Your task to perform on an android device: Go to Android settings Image 0: 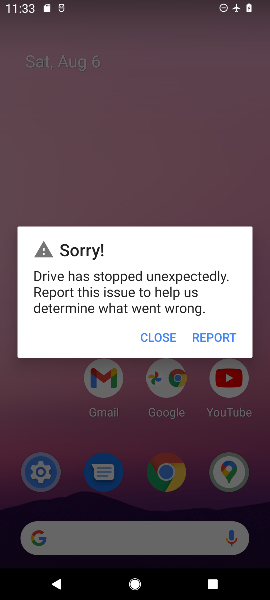
Step 0: press back button
Your task to perform on an android device: Go to Android settings Image 1: 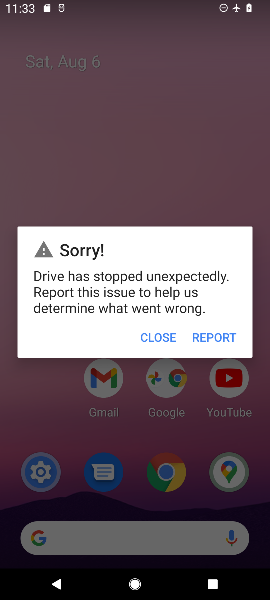
Step 1: click (163, 337)
Your task to perform on an android device: Go to Android settings Image 2: 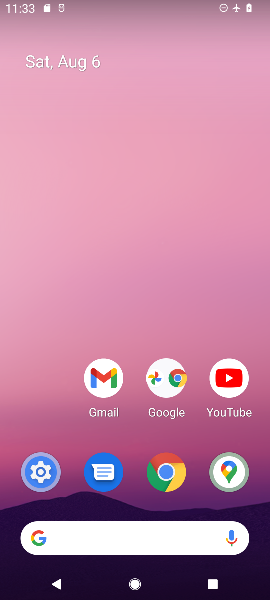
Step 2: drag from (165, 566) to (123, 137)
Your task to perform on an android device: Go to Android settings Image 3: 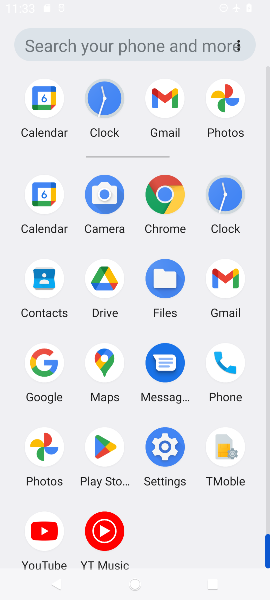
Step 3: drag from (163, 503) to (154, 194)
Your task to perform on an android device: Go to Android settings Image 4: 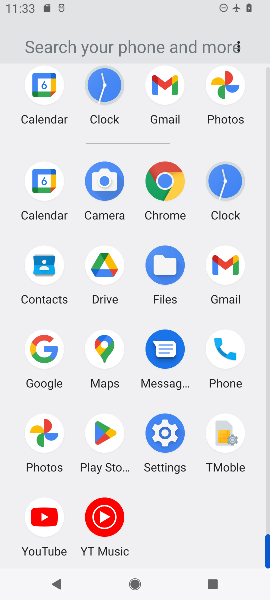
Step 4: click (164, 425)
Your task to perform on an android device: Go to Android settings Image 5: 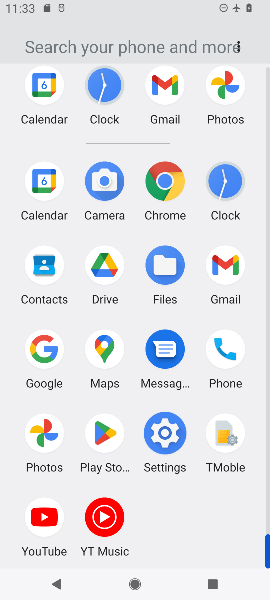
Step 5: click (165, 424)
Your task to perform on an android device: Go to Android settings Image 6: 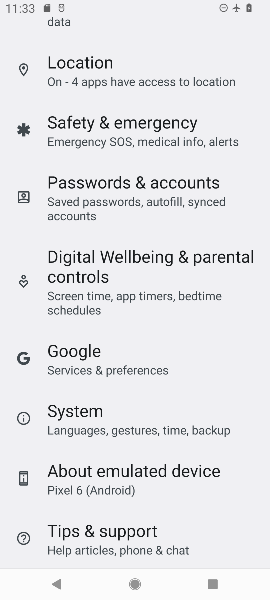
Step 6: task complete